Your task to perform on an android device: change your default location settings in chrome Image 0: 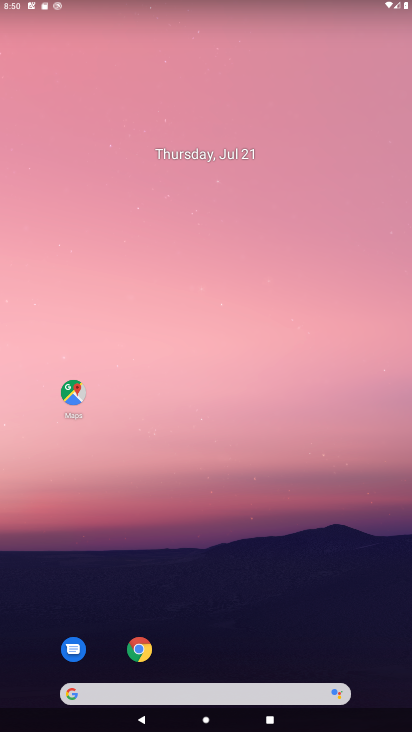
Step 0: click (141, 646)
Your task to perform on an android device: change your default location settings in chrome Image 1: 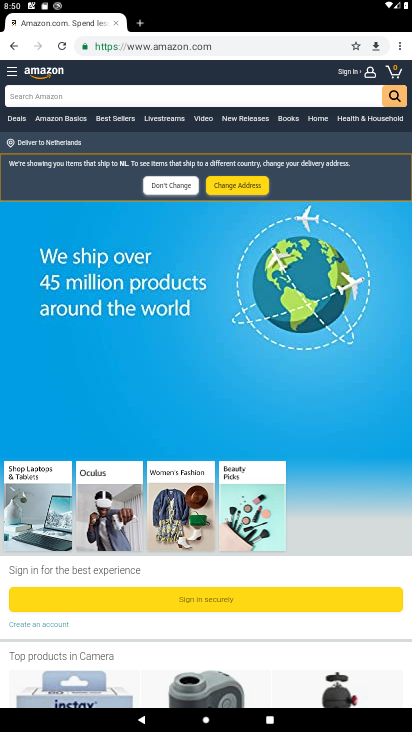
Step 1: click (398, 47)
Your task to perform on an android device: change your default location settings in chrome Image 2: 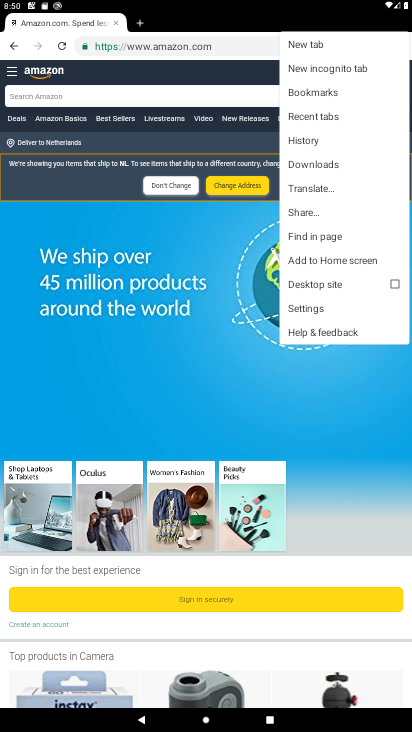
Step 2: click (299, 311)
Your task to perform on an android device: change your default location settings in chrome Image 3: 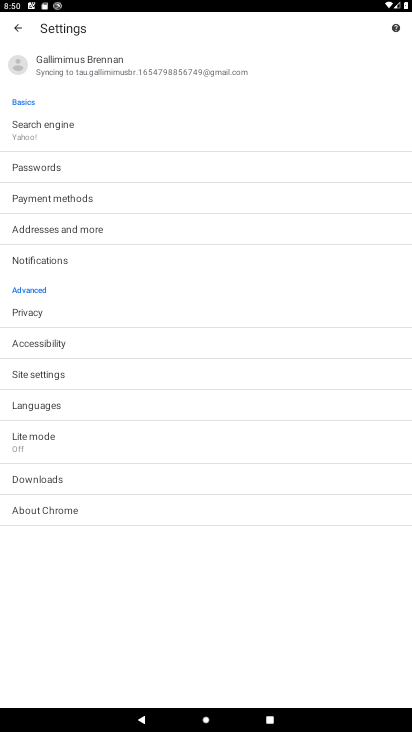
Step 3: click (19, 377)
Your task to perform on an android device: change your default location settings in chrome Image 4: 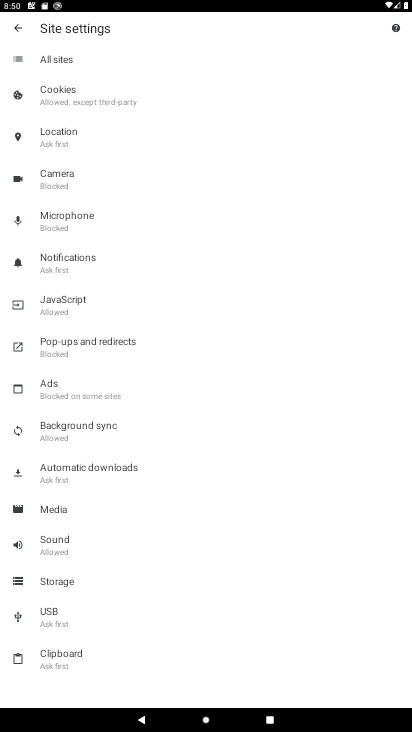
Step 4: click (50, 137)
Your task to perform on an android device: change your default location settings in chrome Image 5: 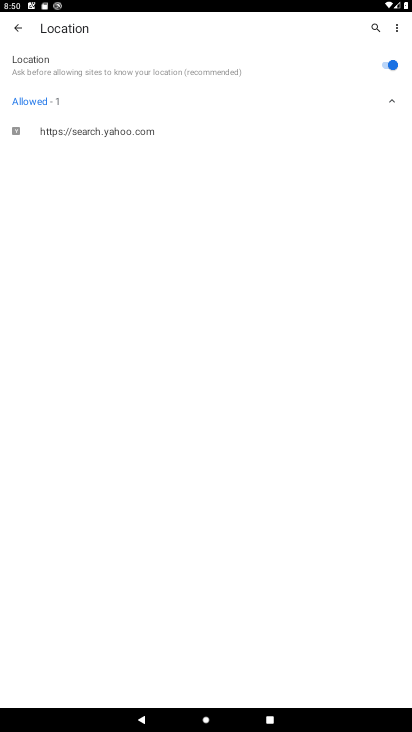
Step 5: click (395, 57)
Your task to perform on an android device: change your default location settings in chrome Image 6: 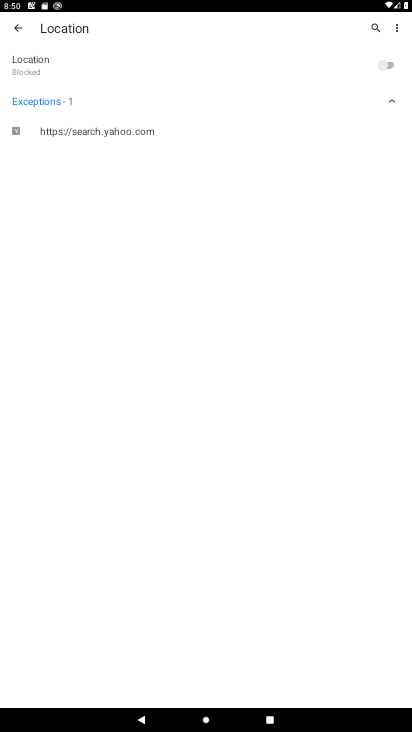
Step 6: task complete